Your task to perform on an android device: Open Amazon Image 0: 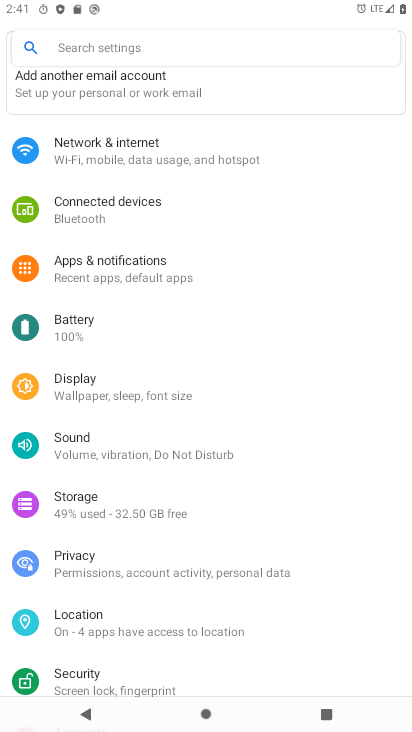
Step 0: press home button
Your task to perform on an android device: Open Amazon Image 1: 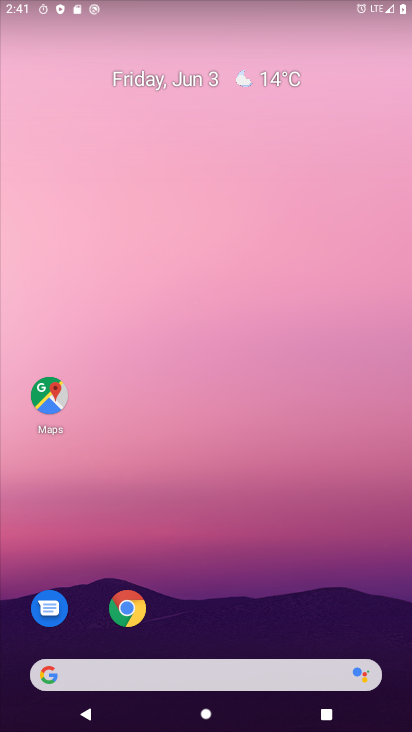
Step 1: click (124, 600)
Your task to perform on an android device: Open Amazon Image 2: 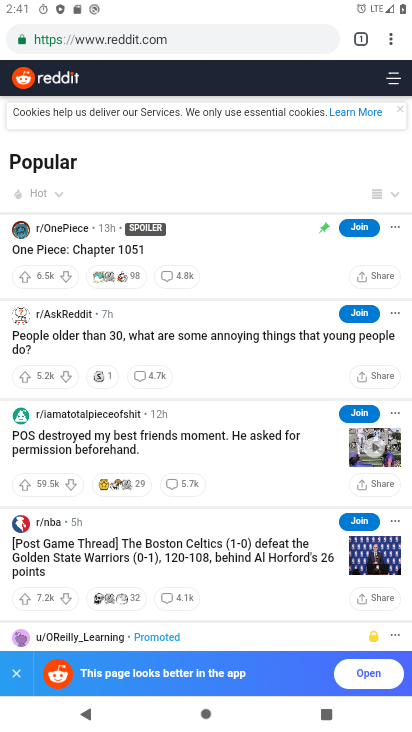
Step 2: click (187, 35)
Your task to perform on an android device: Open Amazon Image 3: 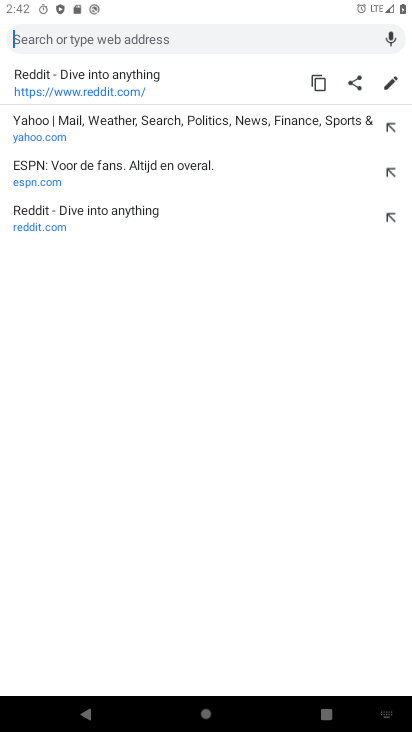
Step 3: type "amazon"
Your task to perform on an android device: Open Amazon Image 4: 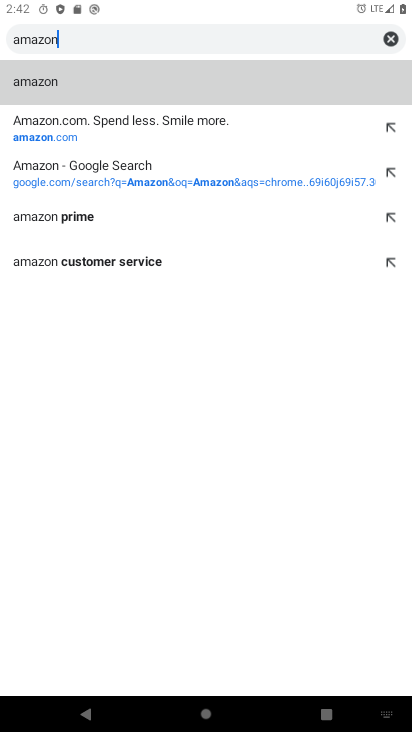
Step 4: click (119, 120)
Your task to perform on an android device: Open Amazon Image 5: 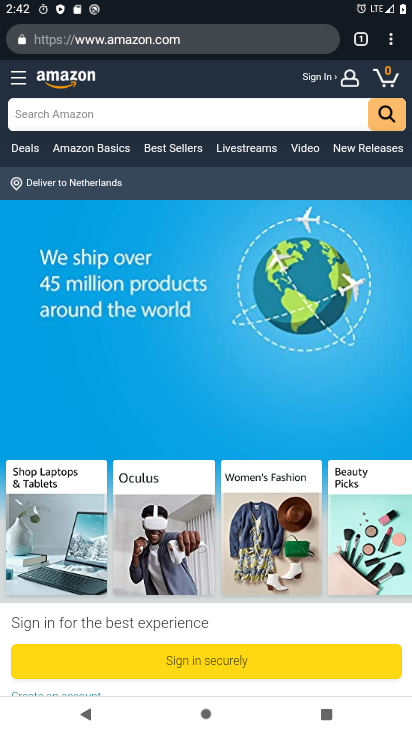
Step 5: task complete